Your task to perform on an android device: Open Chrome and go to the settings page Image 0: 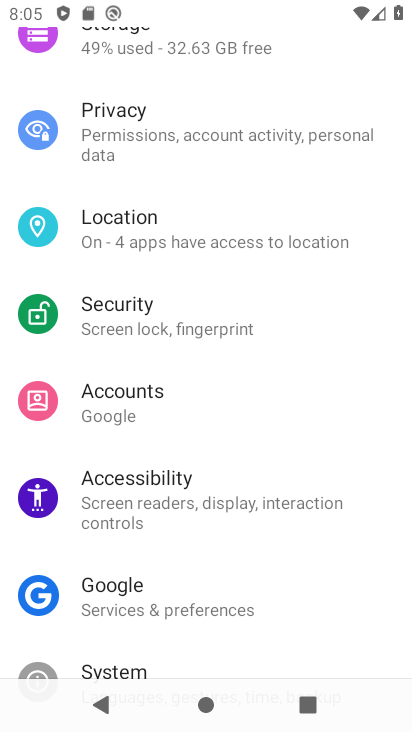
Step 0: press home button
Your task to perform on an android device: Open Chrome and go to the settings page Image 1: 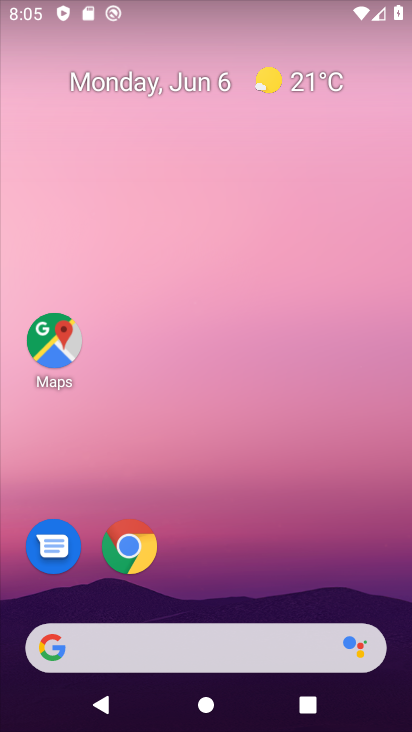
Step 1: drag from (314, 492) to (262, 11)
Your task to perform on an android device: Open Chrome and go to the settings page Image 2: 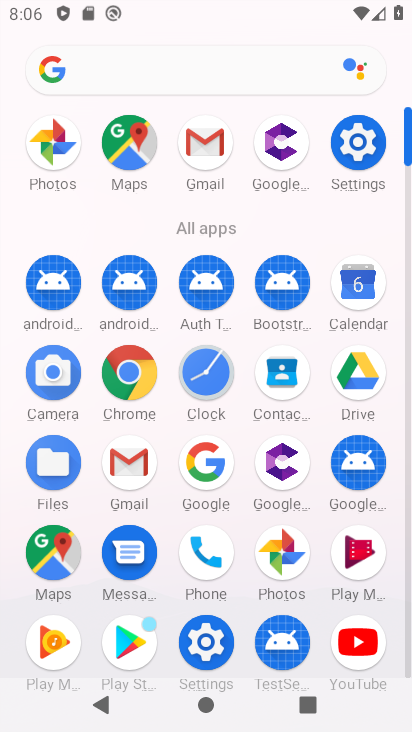
Step 2: click (128, 380)
Your task to perform on an android device: Open Chrome and go to the settings page Image 3: 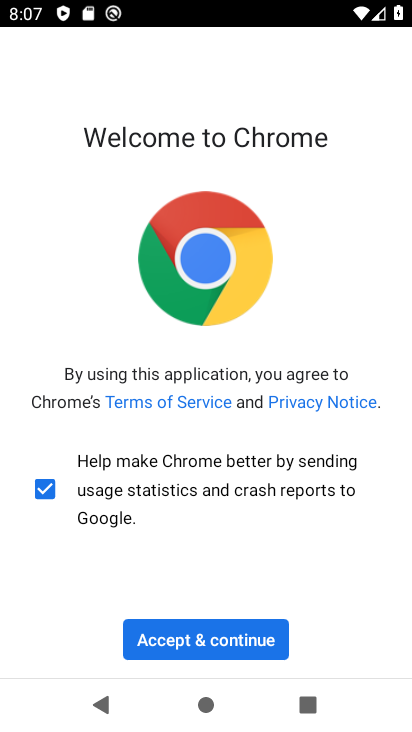
Step 3: click (148, 646)
Your task to perform on an android device: Open Chrome and go to the settings page Image 4: 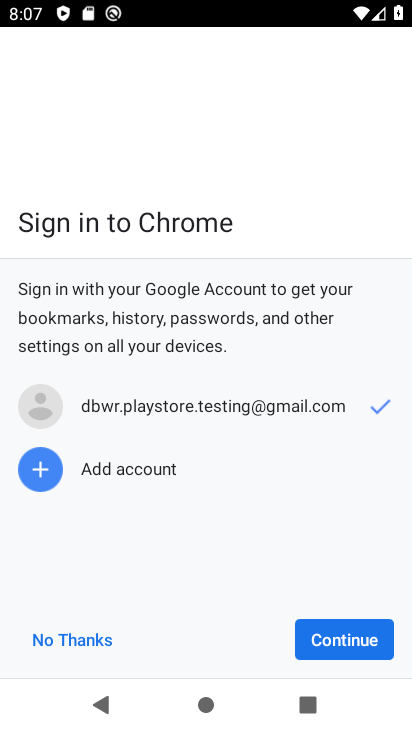
Step 4: click (107, 633)
Your task to perform on an android device: Open Chrome and go to the settings page Image 5: 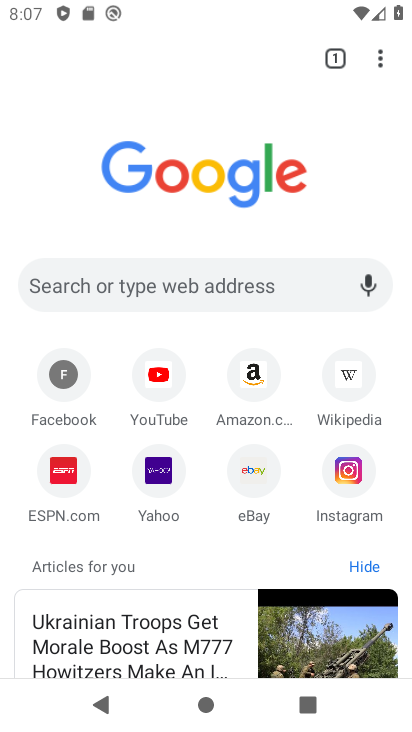
Step 5: task complete